Your task to perform on an android device: turn on wifi Image 0: 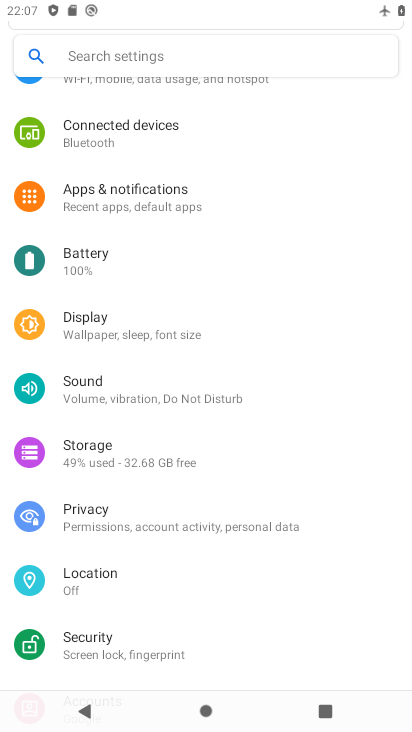
Step 0: drag from (342, 111) to (321, 383)
Your task to perform on an android device: turn on wifi Image 1: 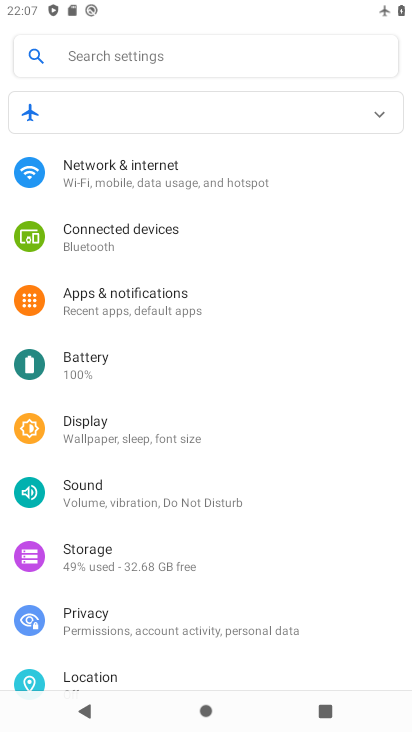
Step 1: click (86, 164)
Your task to perform on an android device: turn on wifi Image 2: 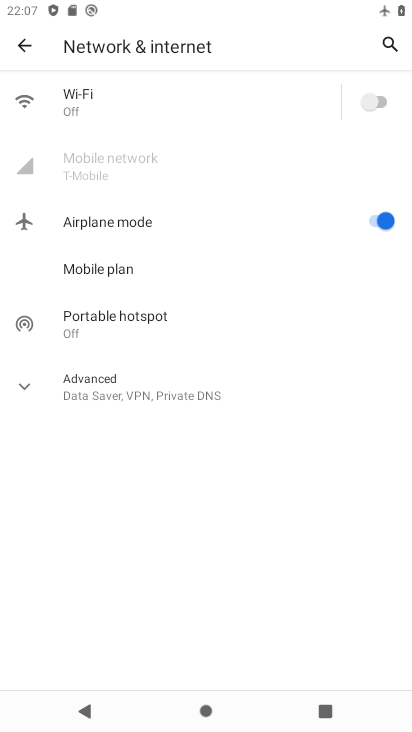
Step 2: click (377, 96)
Your task to perform on an android device: turn on wifi Image 3: 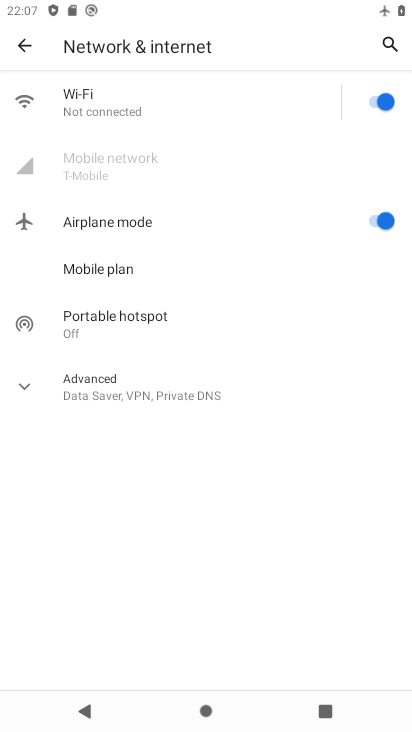
Step 3: task complete